Your task to perform on an android device: Open Yahoo.com Image 0: 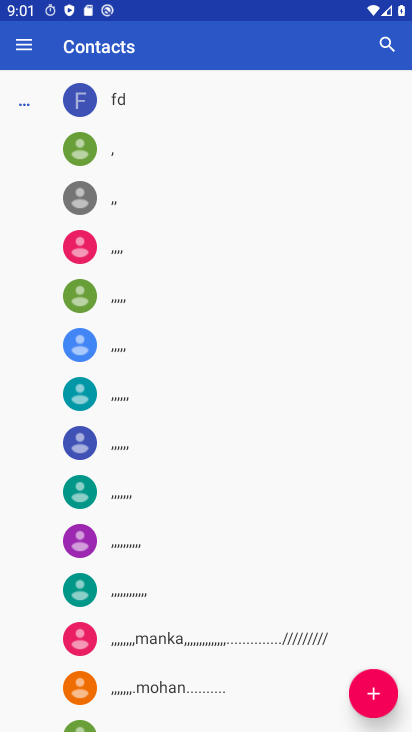
Step 0: press home button
Your task to perform on an android device: Open Yahoo.com Image 1: 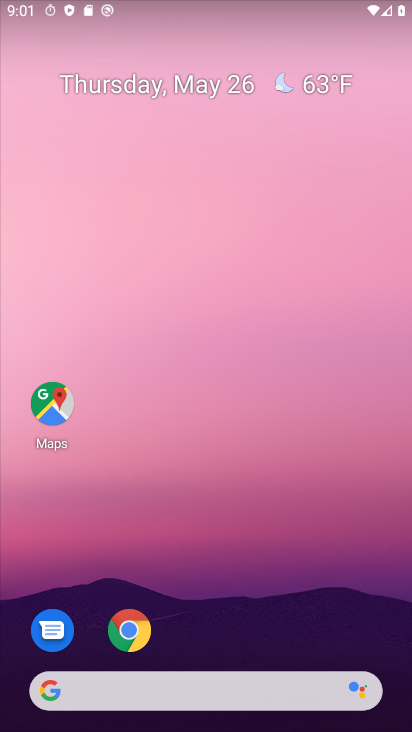
Step 1: drag from (281, 707) to (272, 41)
Your task to perform on an android device: Open Yahoo.com Image 2: 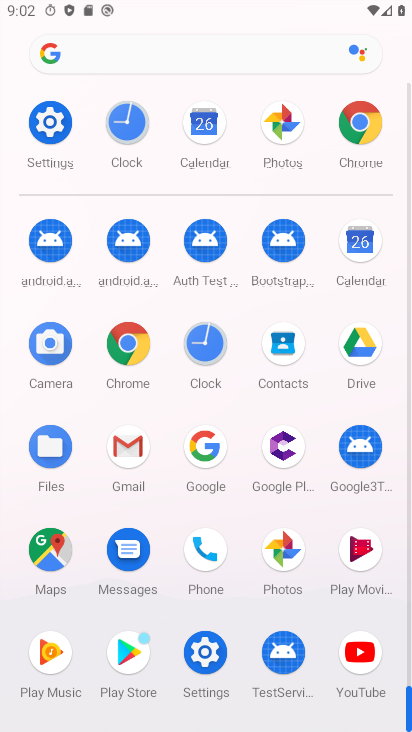
Step 2: click (120, 347)
Your task to perform on an android device: Open Yahoo.com Image 3: 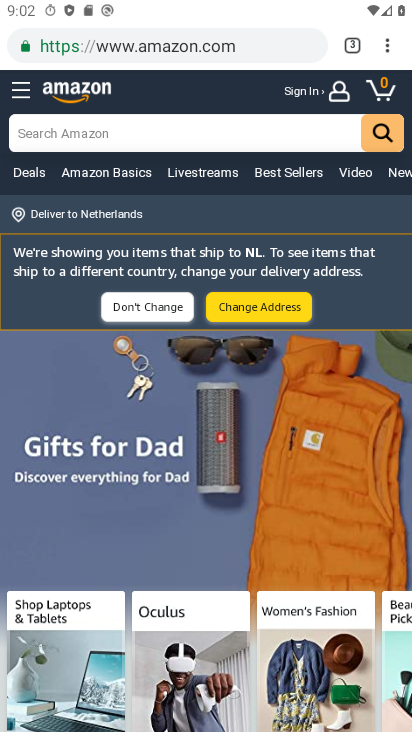
Step 3: drag from (388, 44) to (238, 552)
Your task to perform on an android device: Open Yahoo.com Image 4: 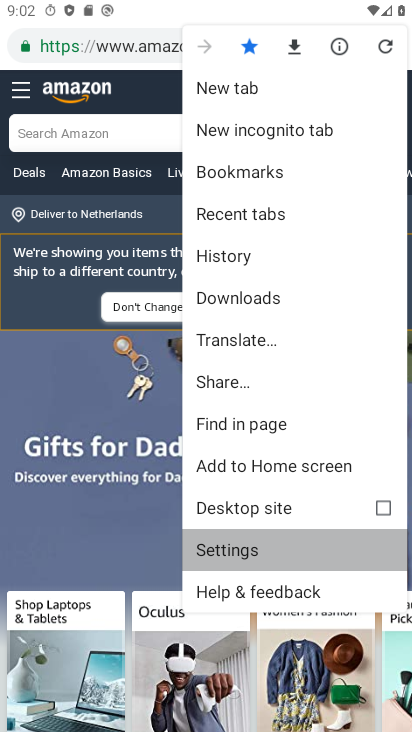
Step 4: click (243, 551)
Your task to perform on an android device: Open Yahoo.com Image 5: 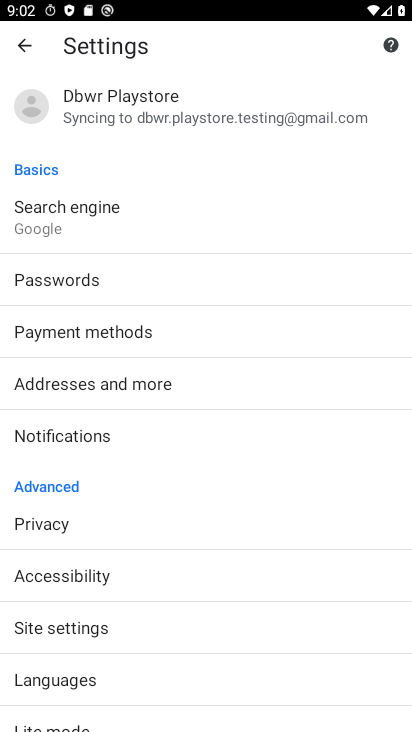
Step 5: drag from (27, 512) to (27, 208)
Your task to perform on an android device: Open Yahoo.com Image 6: 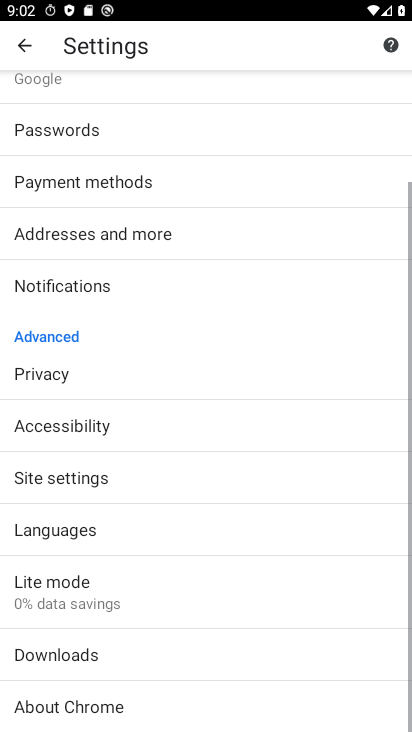
Step 6: press back button
Your task to perform on an android device: Open Yahoo.com Image 7: 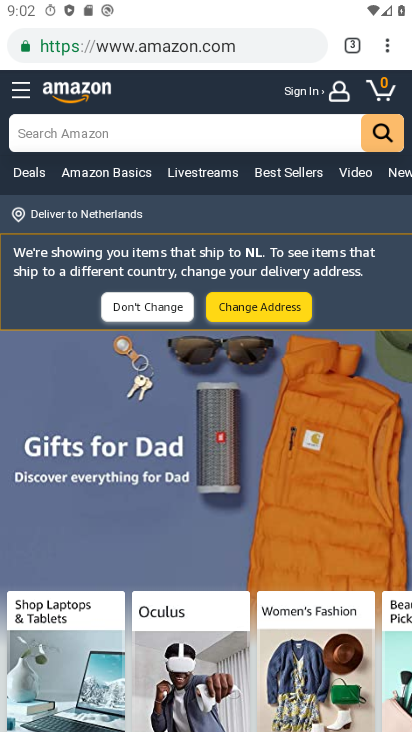
Step 7: drag from (387, 46) to (220, 85)
Your task to perform on an android device: Open Yahoo.com Image 8: 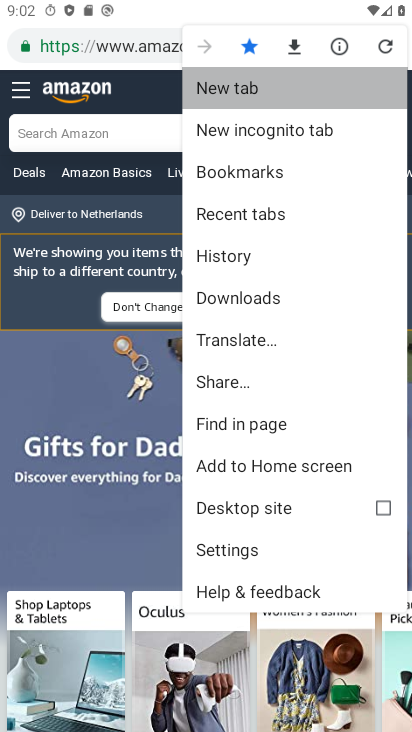
Step 8: click (220, 85)
Your task to perform on an android device: Open Yahoo.com Image 9: 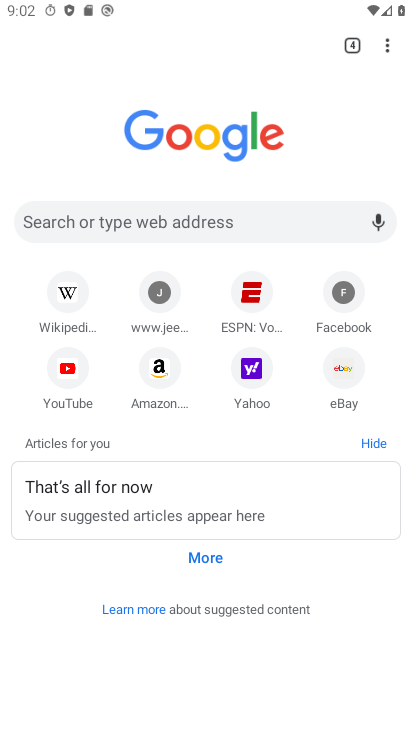
Step 9: click (252, 374)
Your task to perform on an android device: Open Yahoo.com Image 10: 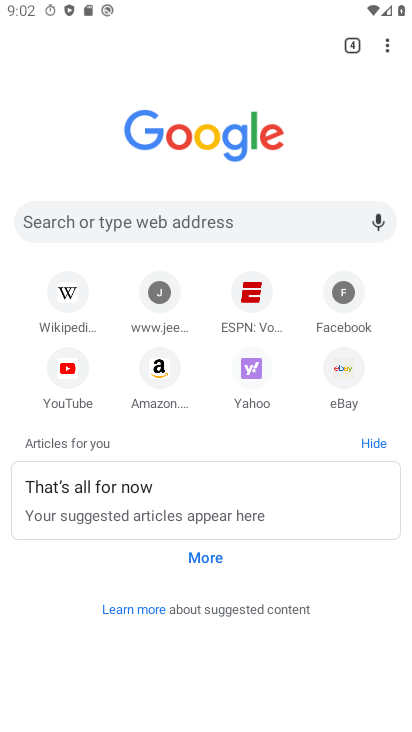
Step 10: click (257, 370)
Your task to perform on an android device: Open Yahoo.com Image 11: 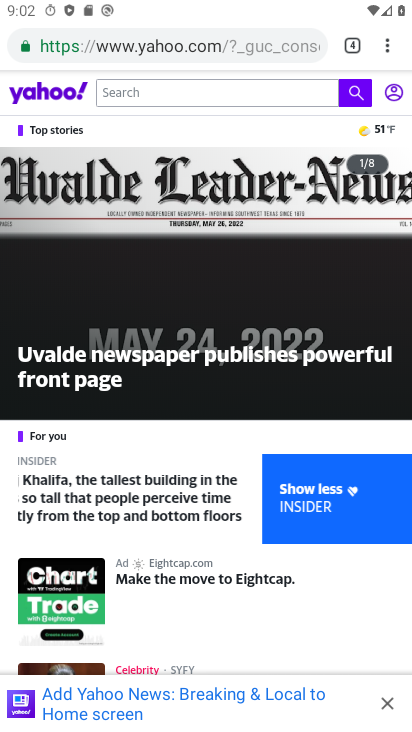
Step 11: task complete